Your task to perform on an android device: Empty the shopping cart on bestbuy.com. Search for dell alienware on bestbuy.com, select the first entry, and add it to the cart. Image 0: 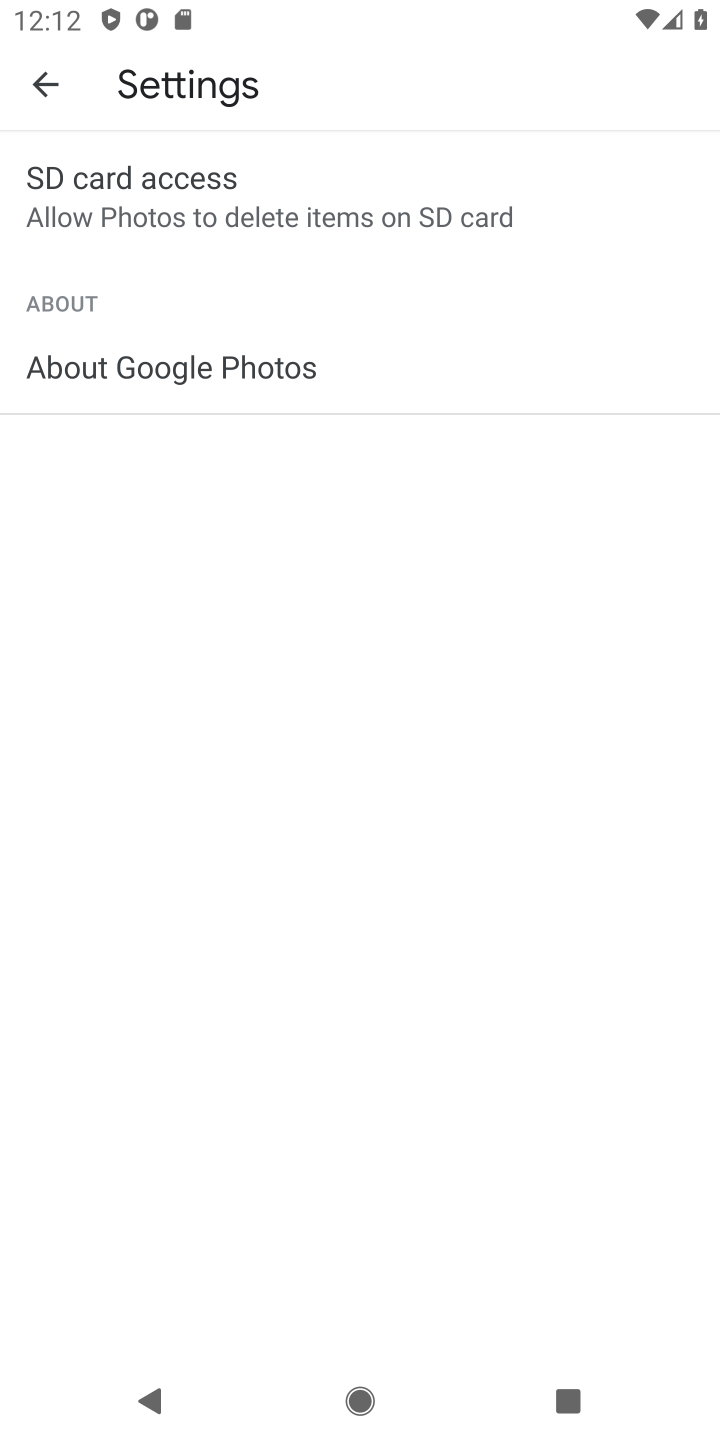
Step 0: press home button
Your task to perform on an android device: Empty the shopping cart on bestbuy.com. Search for dell alienware on bestbuy.com, select the first entry, and add it to the cart. Image 1: 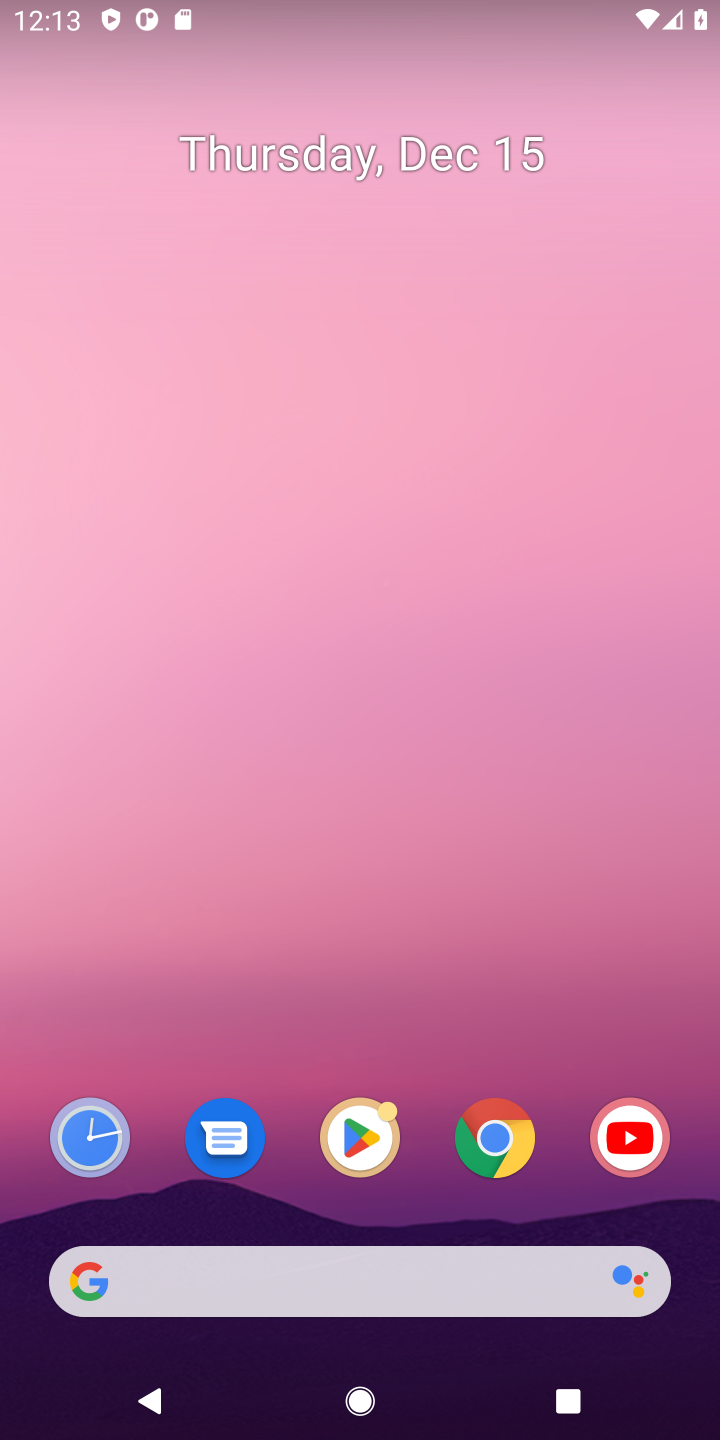
Step 1: click (498, 1134)
Your task to perform on an android device: Empty the shopping cart on bestbuy.com. Search for dell alienware on bestbuy.com, select the first entry, and add it to the cart. Image 2: 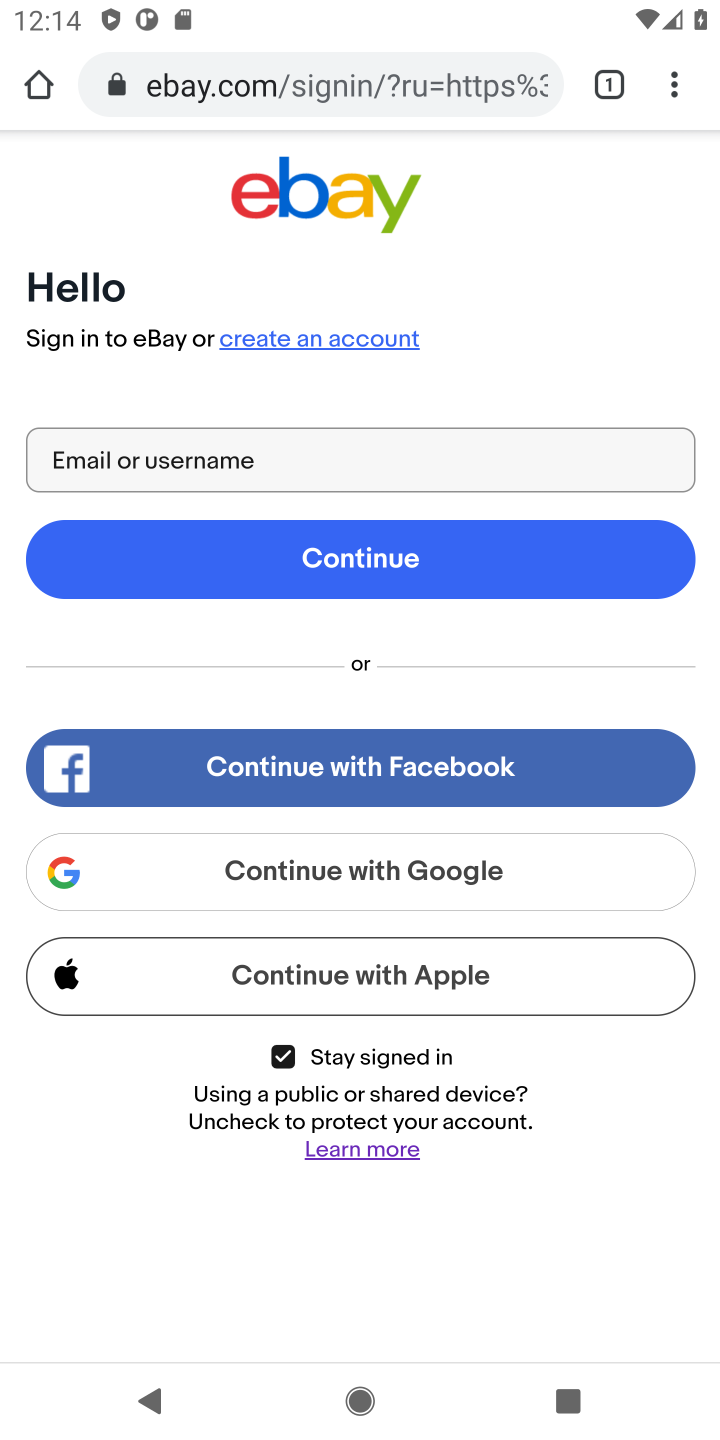
Step 2: press home button
Your task to perform on an android device: Empty the shopping cart on bestbuy.com. Search for dell alienware on bestbuy.com, select the first entry, and add it to the cart. Image 3: 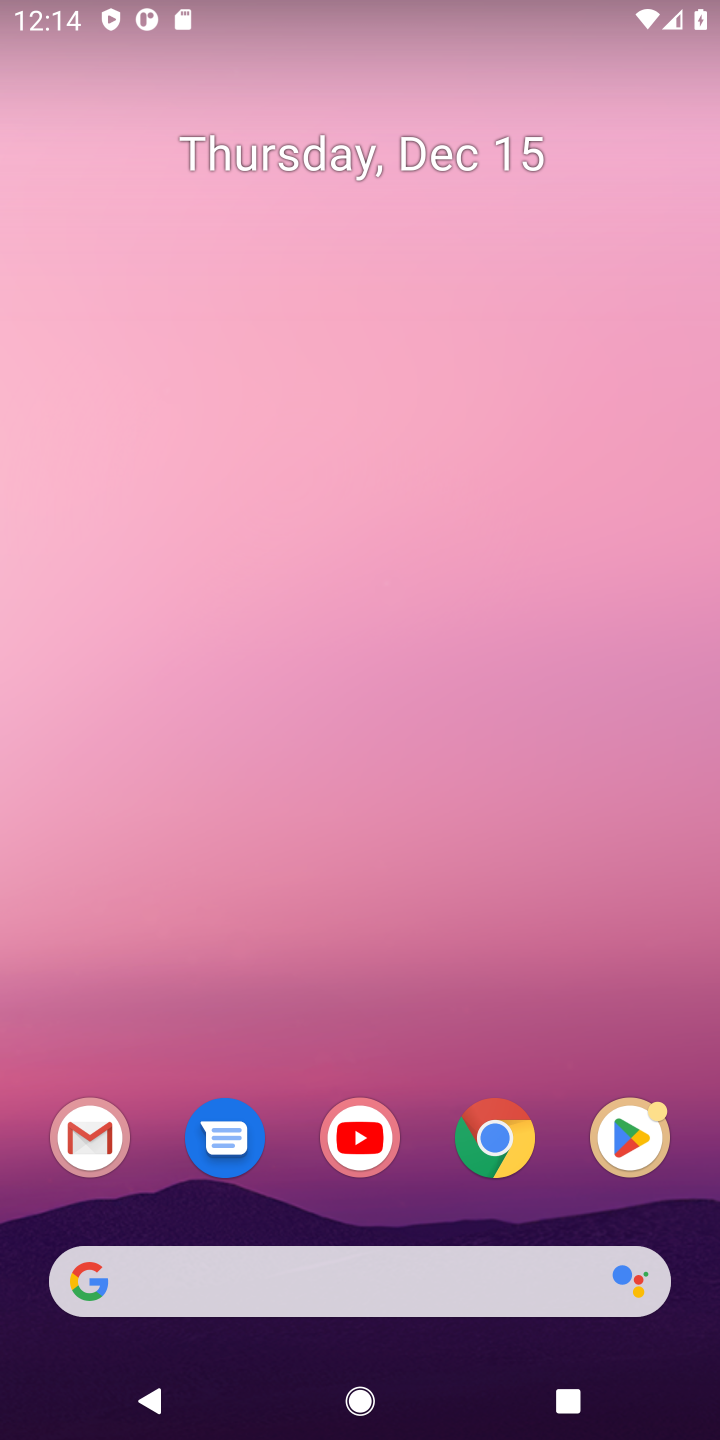
Step 3: click (491, 1127)
Your task to perform on an android device: Empty the shopping cart on bestbuy.com. Search for dell alienware on bestbuy.com, select the first entry, and add it to the cart. Image 4: 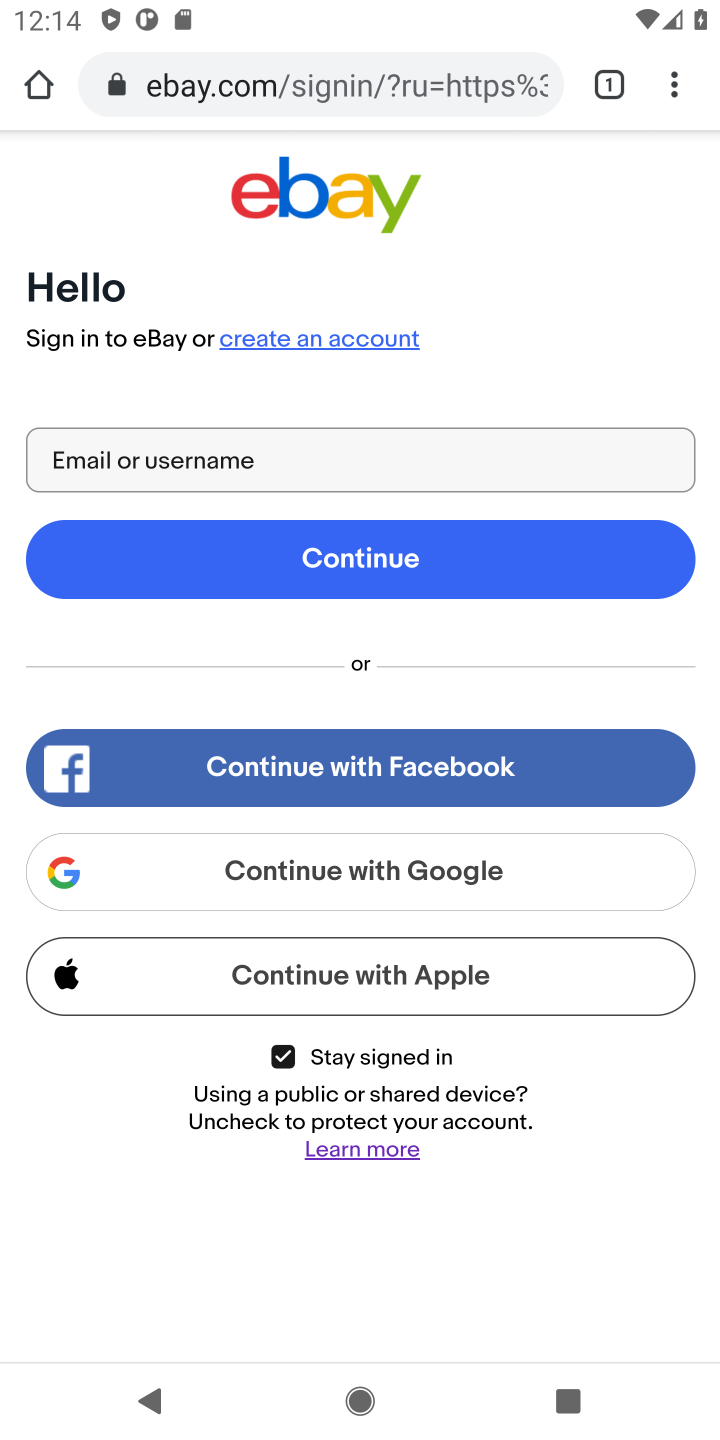
Step 4: click (232, 95)
Your task to perform on an android device: Empty the shopping cart on bestbuy.com. Search for dell alienware on bestbuy.com, select the first entry, and add it to the cart. Image 5: 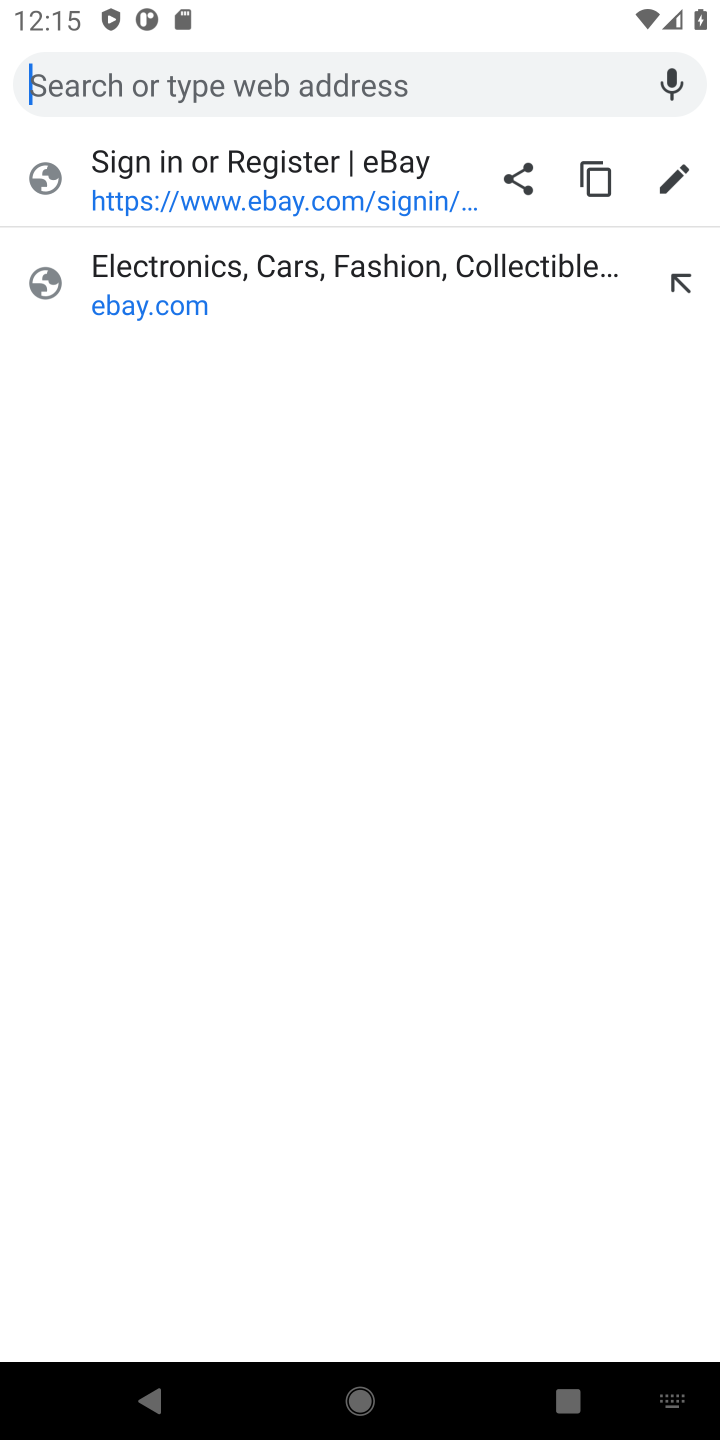
Step 5: type "bestbuy.com"
Your task to perform on an android device: Empty the shopping cart on bestbuy.com. Search for dell alienware on bestbuy.com, select the first entry, and add it to the cart. Image 6: 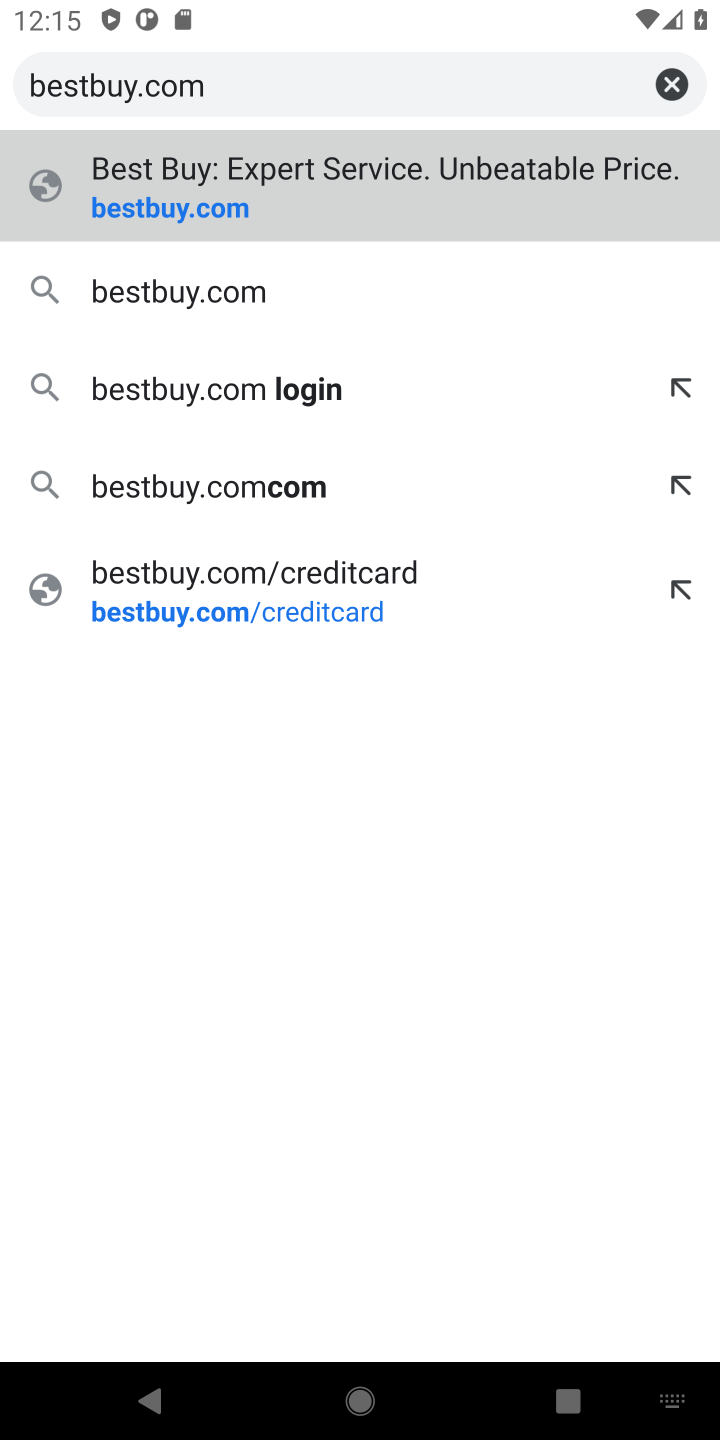
Step 6: click (161, 299)
Your task to perform on an android device: Empty the shopping cart on bestbuy.com. Search for dell alienware on bestbuy.com, select the first entry, and add it to the cart. Image 7: 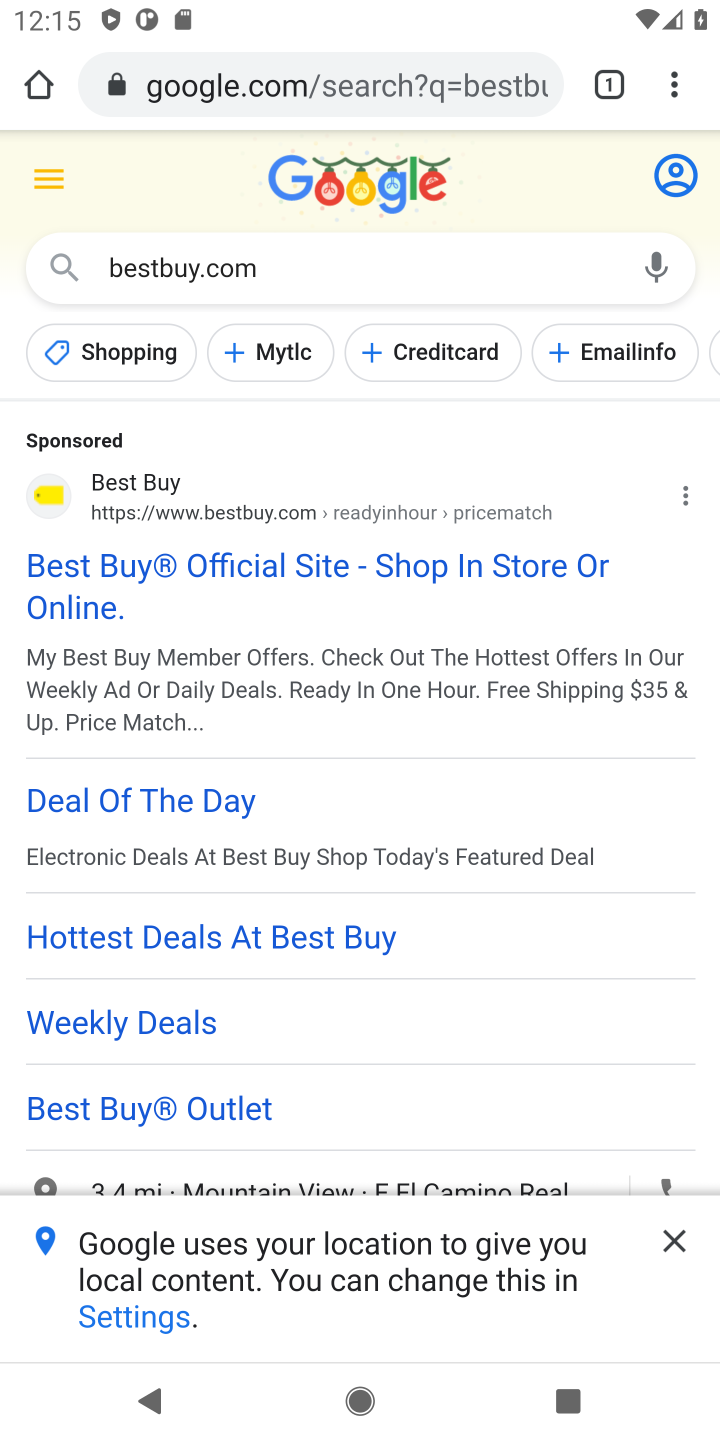
Step 7: click (254, 106)
Your task to perform on an android device: Empty the shopping cart on bestbuy.com. Search for dell alienware on bestbuy.com, select the first entry, and add it to the cart. Image 8: 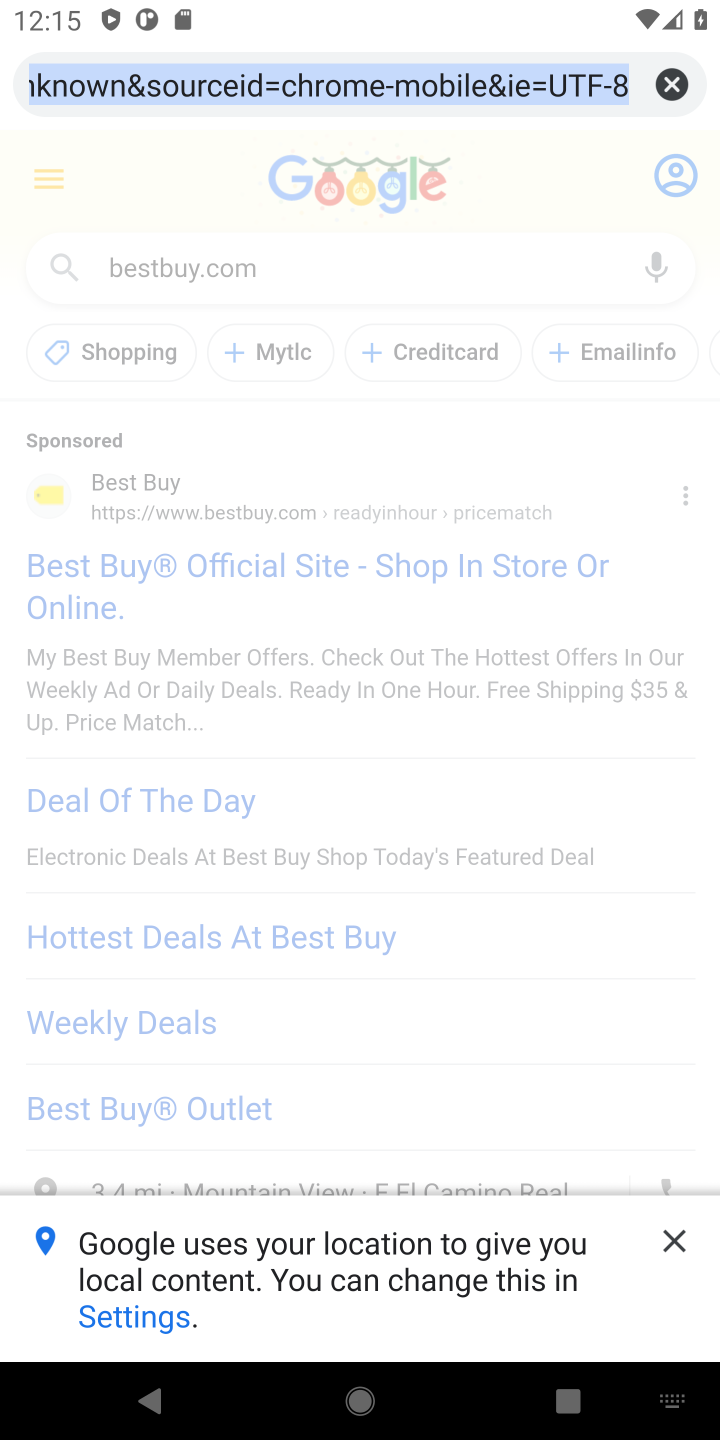
Step 8: click (675, 83)
Your task to perform on an android device: Empty the shopping cart on bestbuy.com. Search for dell alienware on bestbuy.com, select the first entry, and add it to the cart. Image 9: 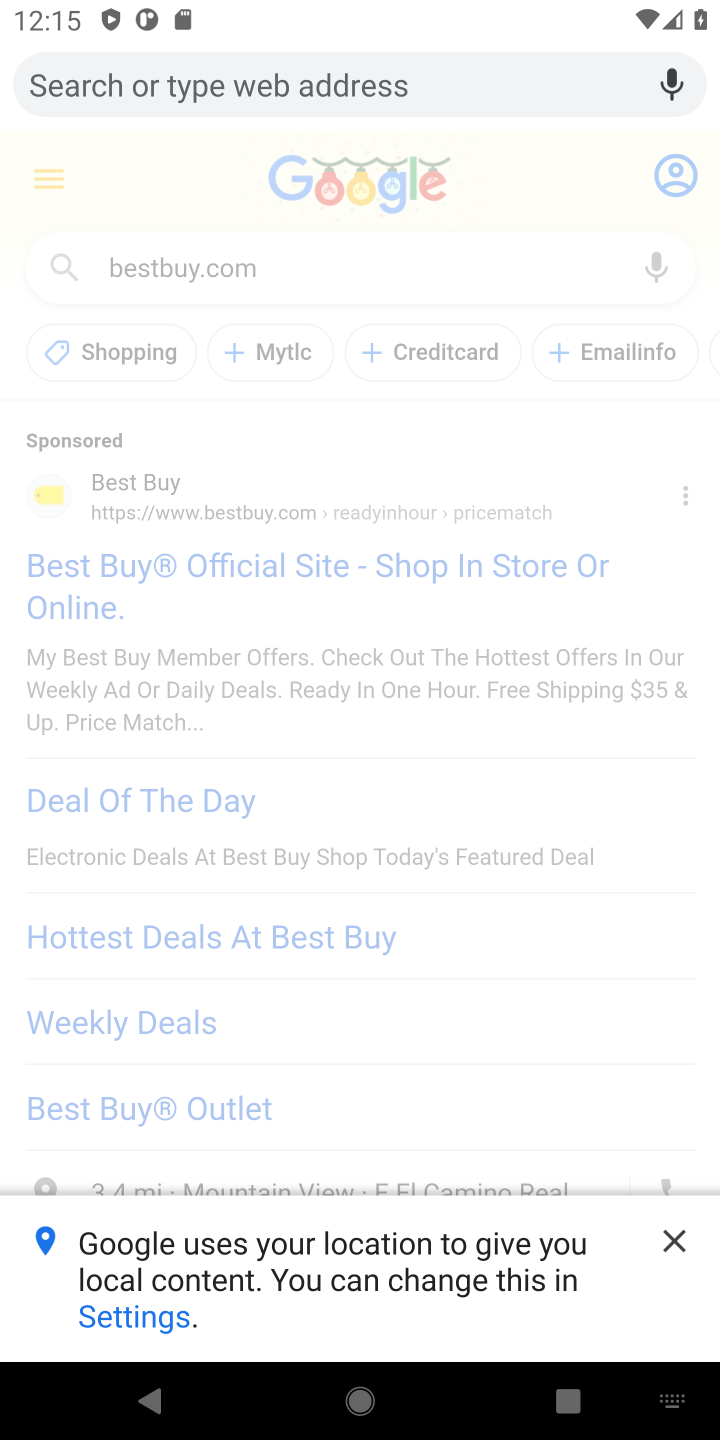
Step 9: type "bestbuy.com"
Your task to perform on an android device: Empty the shopping cart on bestbuy.com. Search for dell alienware on bestbuy.com, select the first entry, and add it to the cart. Image 10: 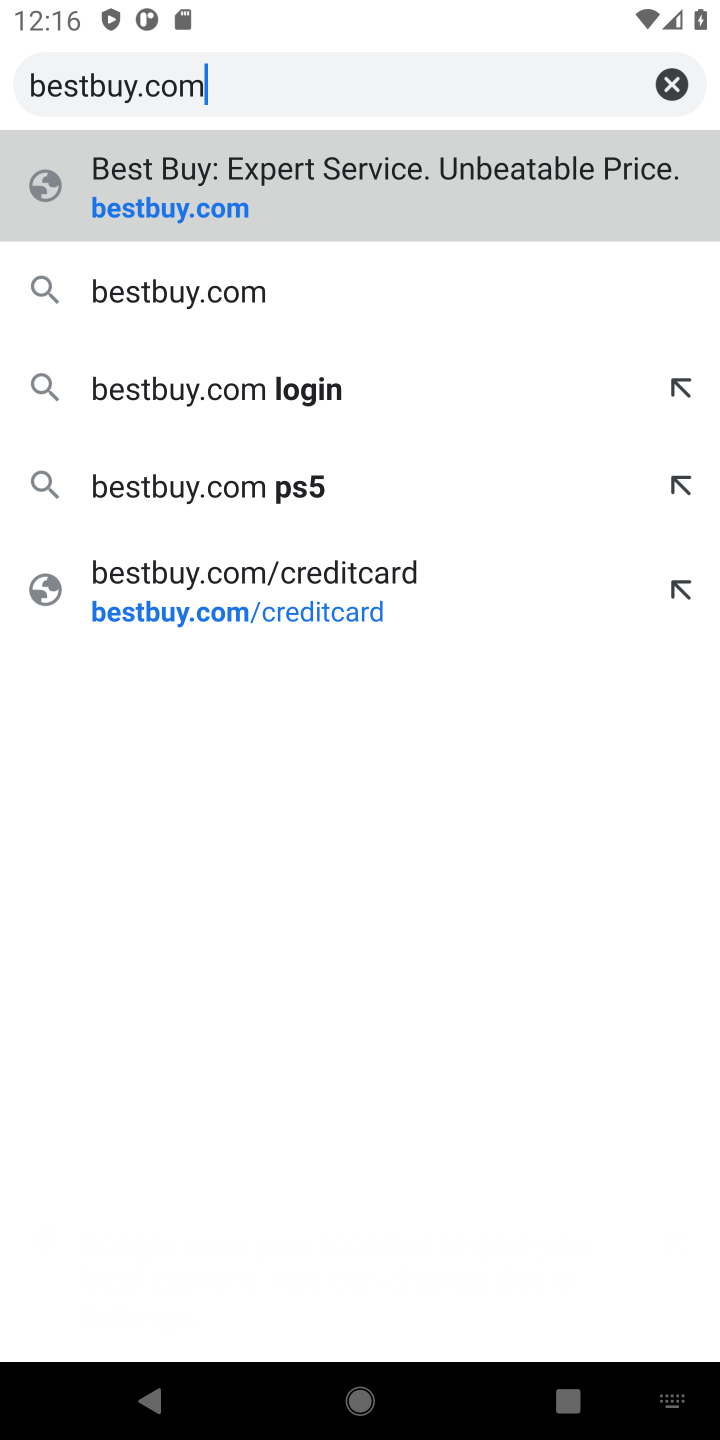
Step 10: click (409, 180)
Your task to perform on an android device: Empty the shopping cart on bestbuy.com. Search for dell alienware on bestbuy.com, select the first entry, and add it to the cart. Image 11: 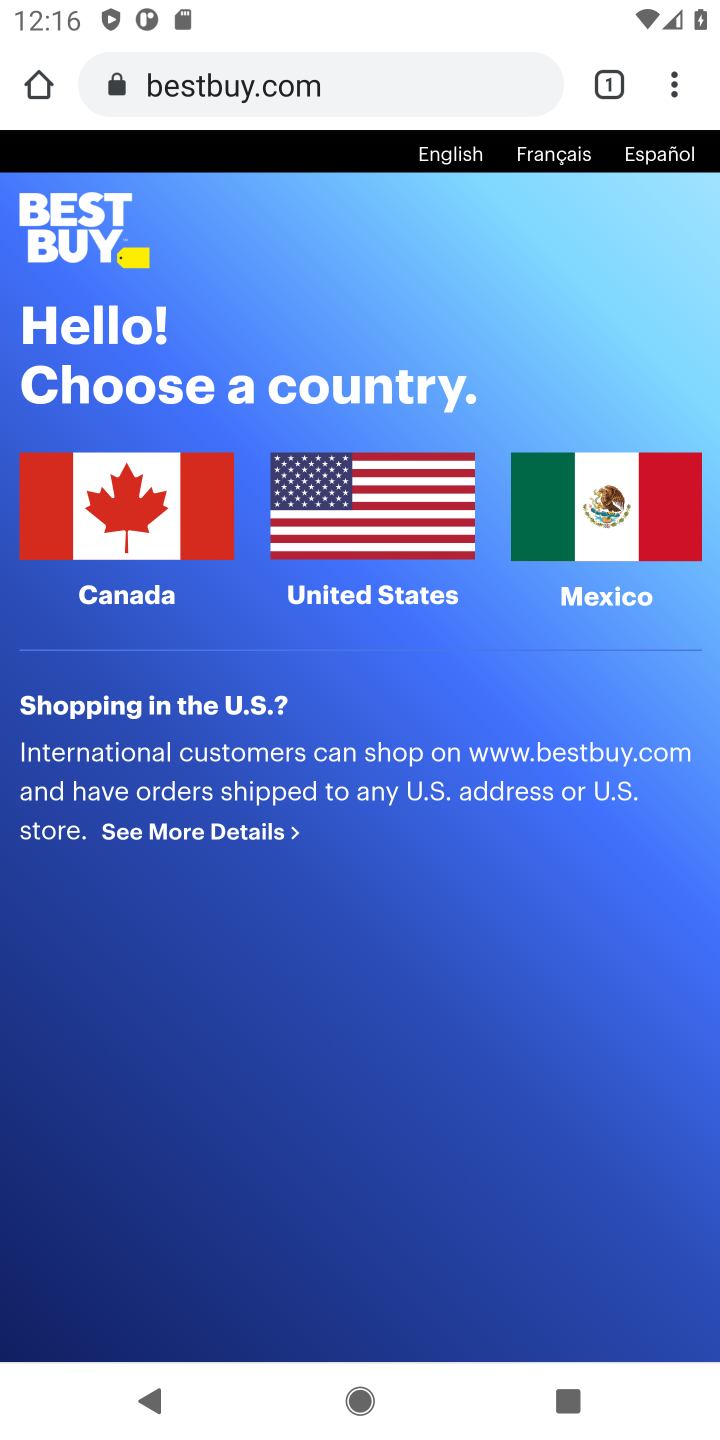
Step 11: click (360, 508)
Your task to perform on an android device: Empty the shopping cart on bestbuy.com. Search for dell alienware on bestbuy.com, select the first entry, and add it to the cart. Image 12: 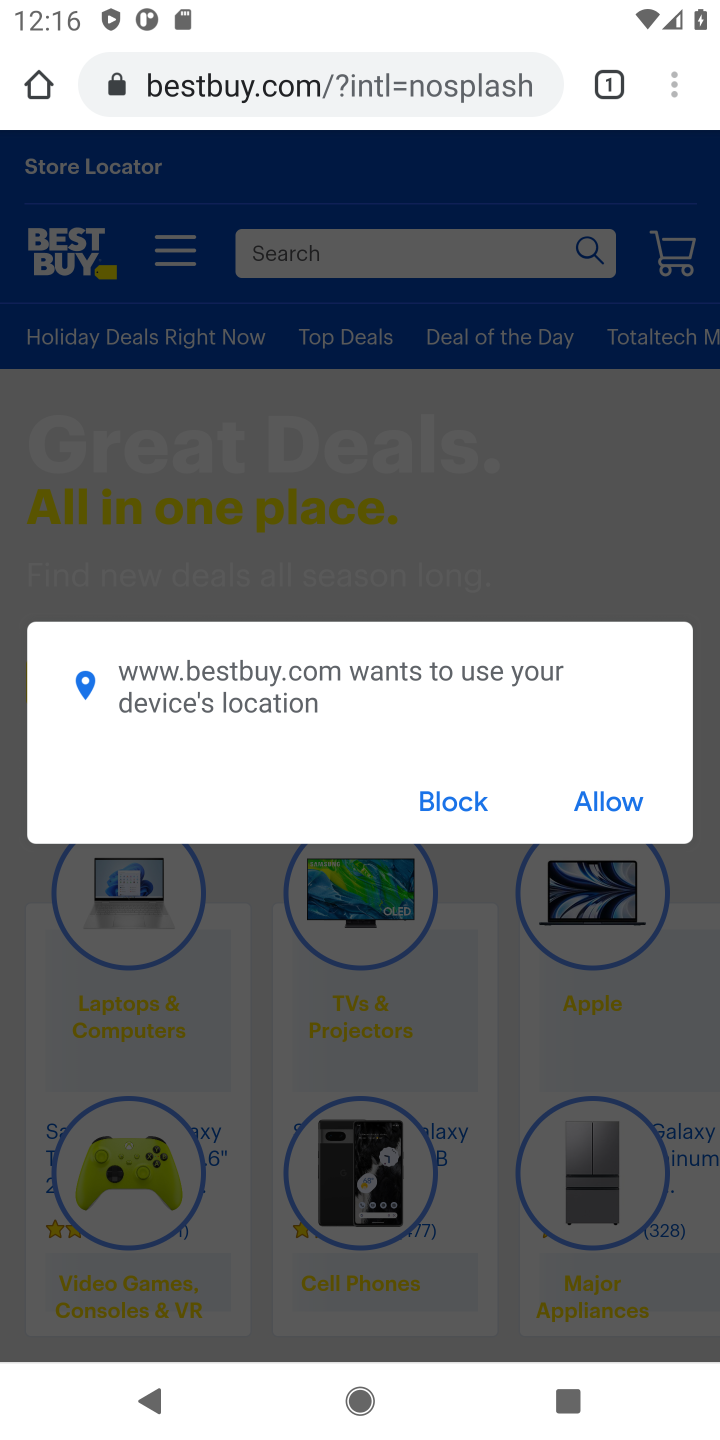
Step 12: click (438, 801)
Your task to perform on an android device: Empty the shopping cart on bestbuy.com. Search for dell alienware on bestbuy.com, select the first entry, and add it to the cart. Image 13: 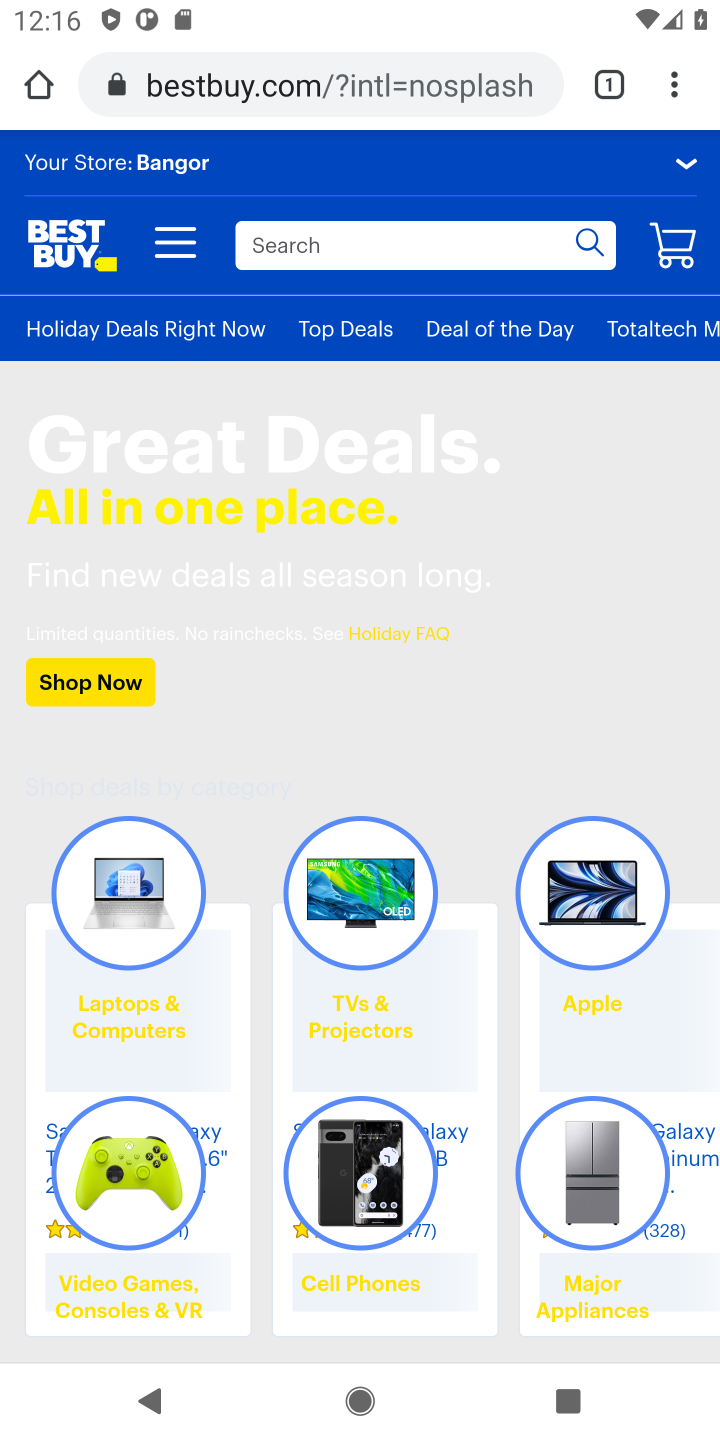
Step 13: click (661, 240)
Your task to perform on an android device: Empty the shopping cart on bestbuy.com. Search for dell alienware on bestbuy.com, select the first entry, and add it to the cart. Image 14: 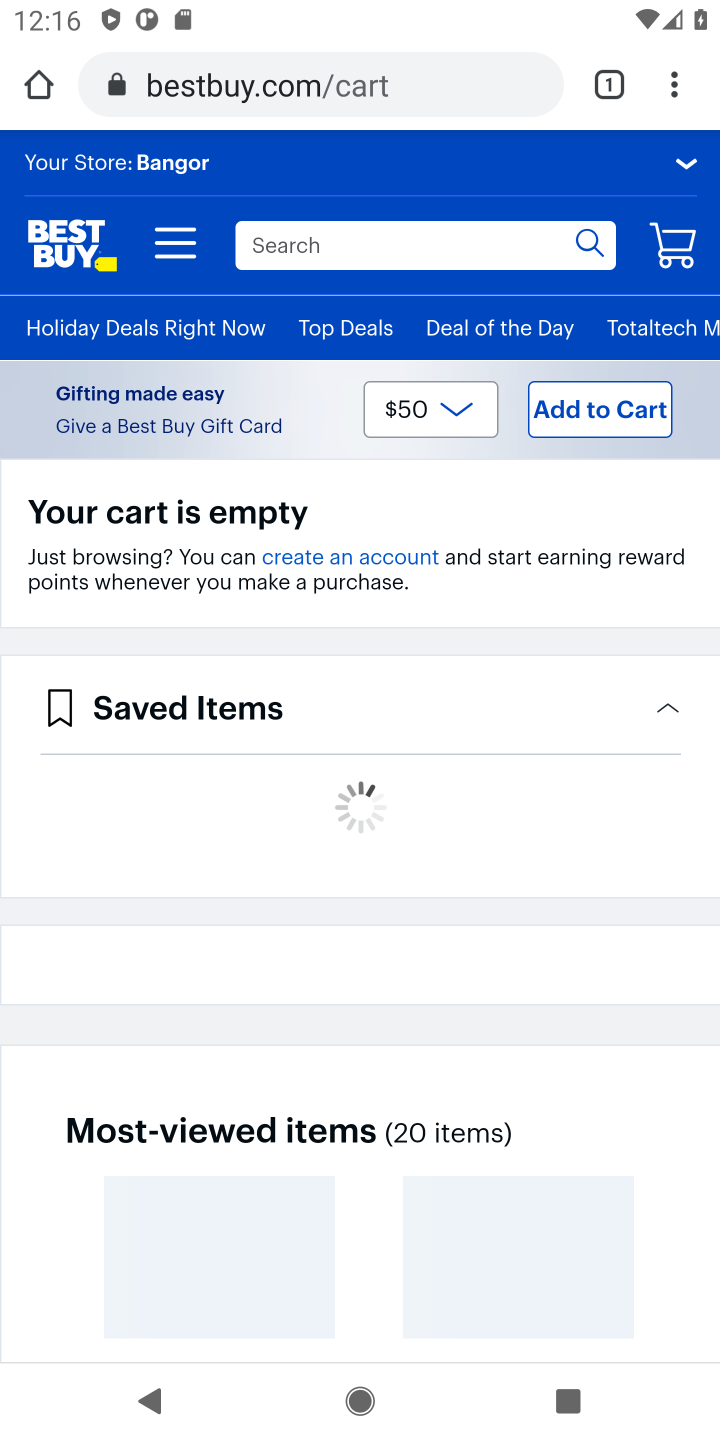
Step 14: drag from (580, 1374) to (7, 996)
Your task to perform on an android device: Empty the shopping cart on bestbuy.com. Search for dell alienware on bestbuy.com, select the first entry, and add it to the cart. Image 15: 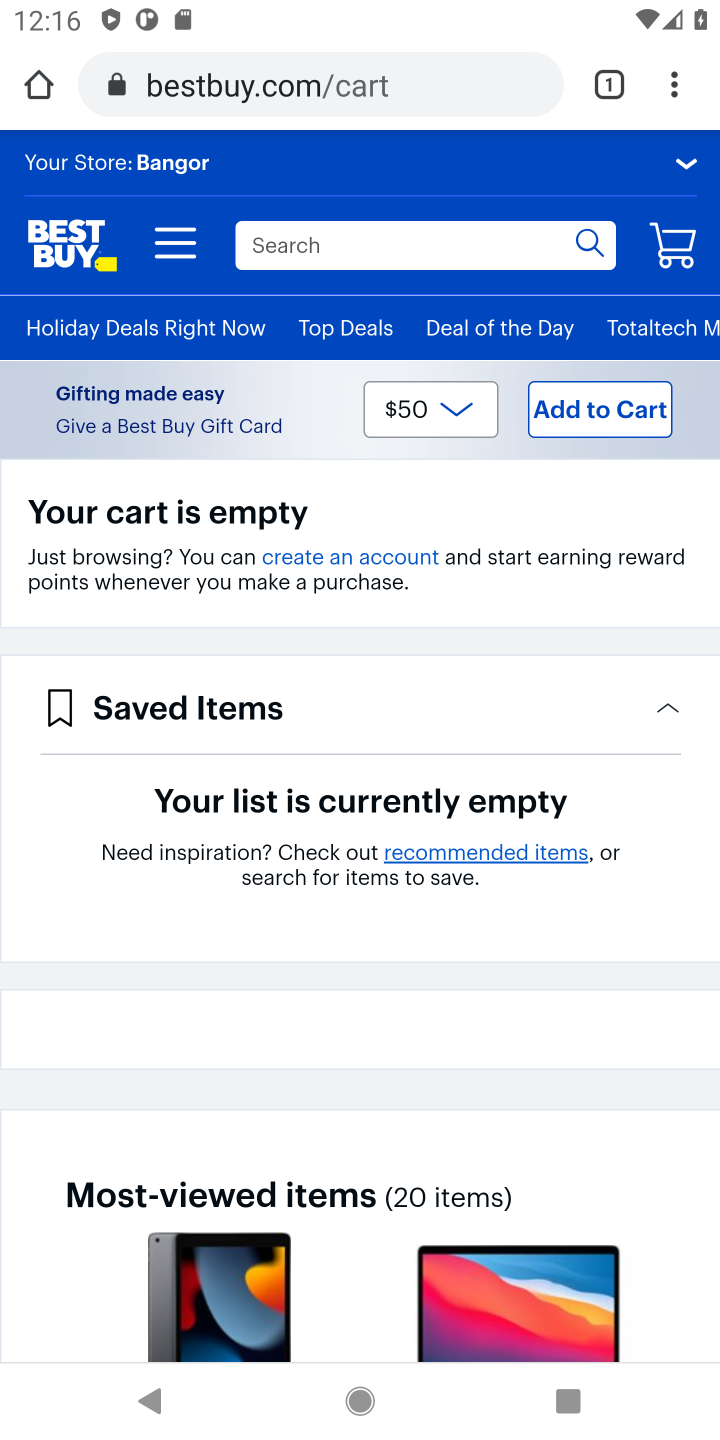
Step 15: click (462, 262)
Your task to perform on an android device: Empty the shopping cart on bestbuy.com. Search for dell alienware on bestbuy.com, select the first entry, and add it to the cart. Image 16: 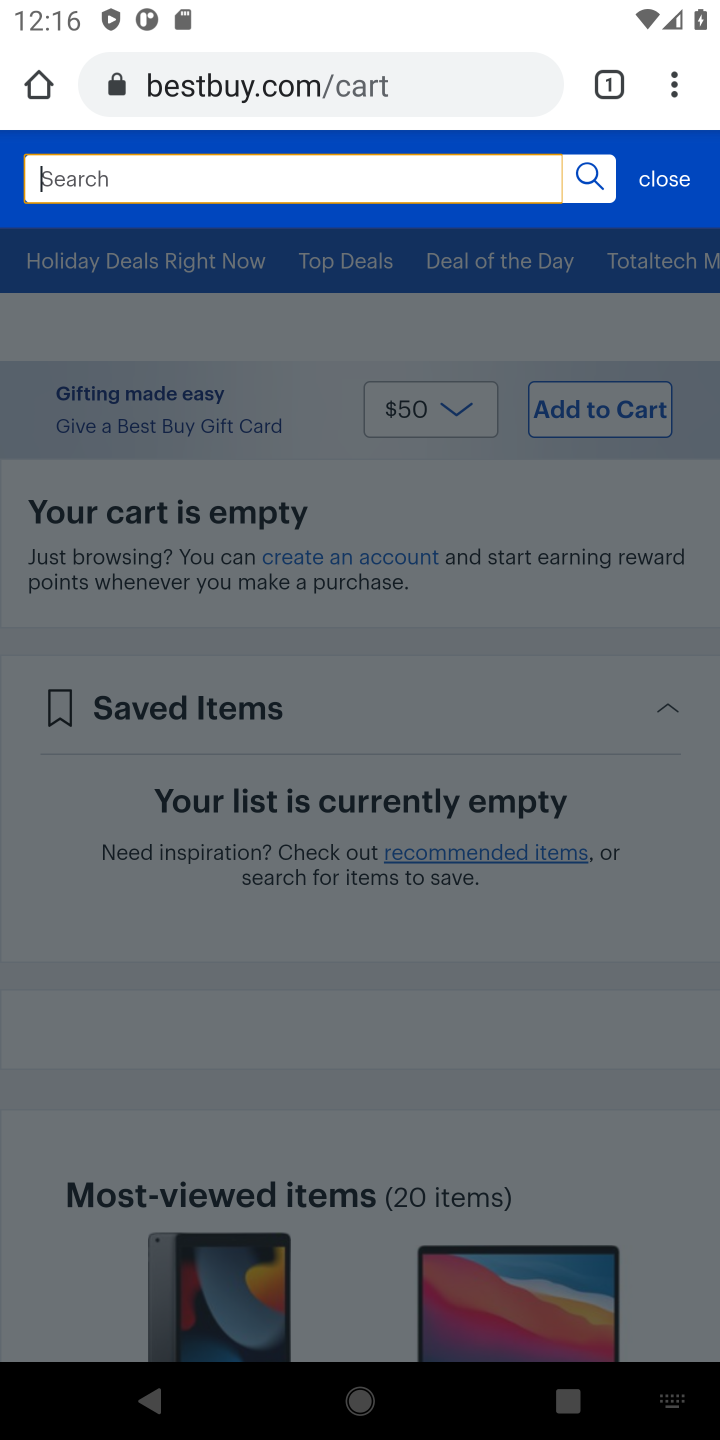
Step 16: type "dell alienware"
Your task to perform on an android device: Empty the shopping cart on bestbuy.com. Search for dell alienware on bestbuy.com, select the first entry, and add it to the cart. Image 17: 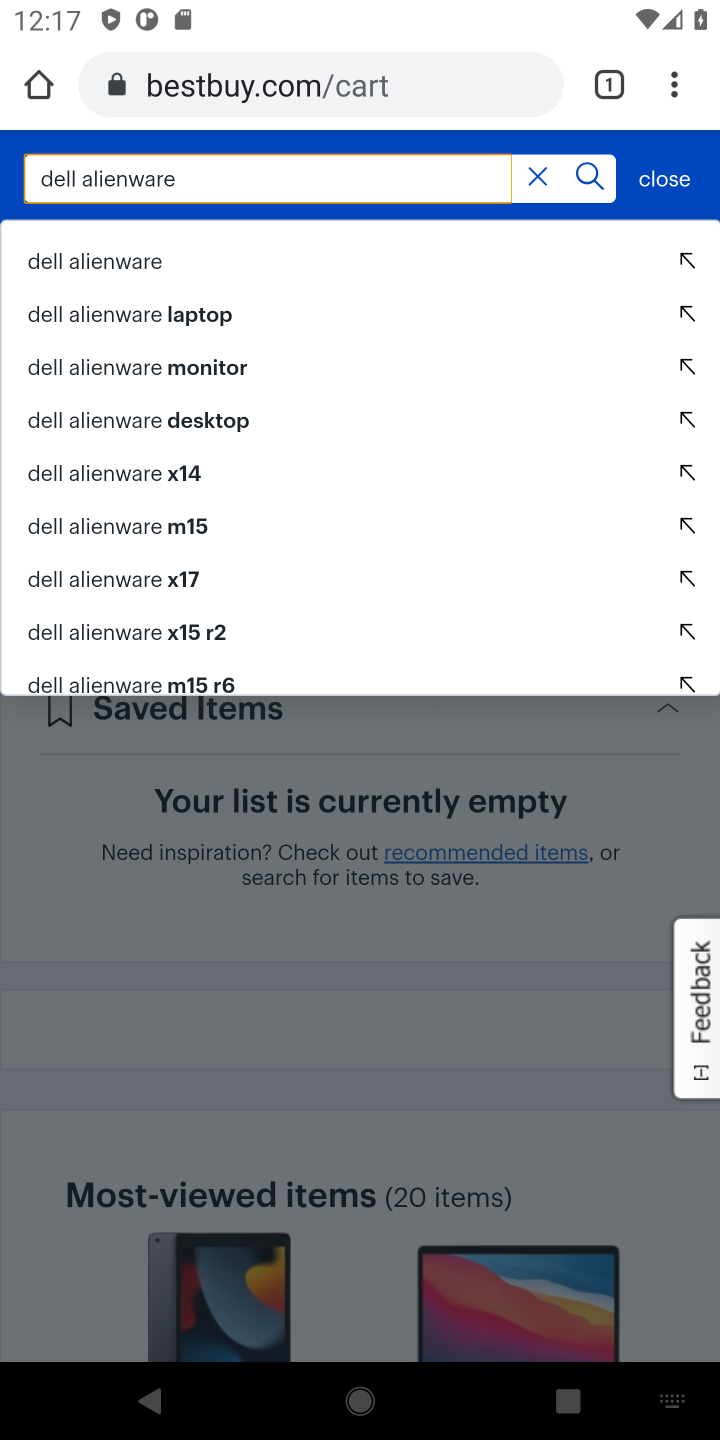
Step 17: click (192, 264)
Your task to perform on an android device: Empty the shopping cart on bestbuy.com. Search for dell alienware on bestbuy.com, select the first entry, and add it to the cart. Image 18: 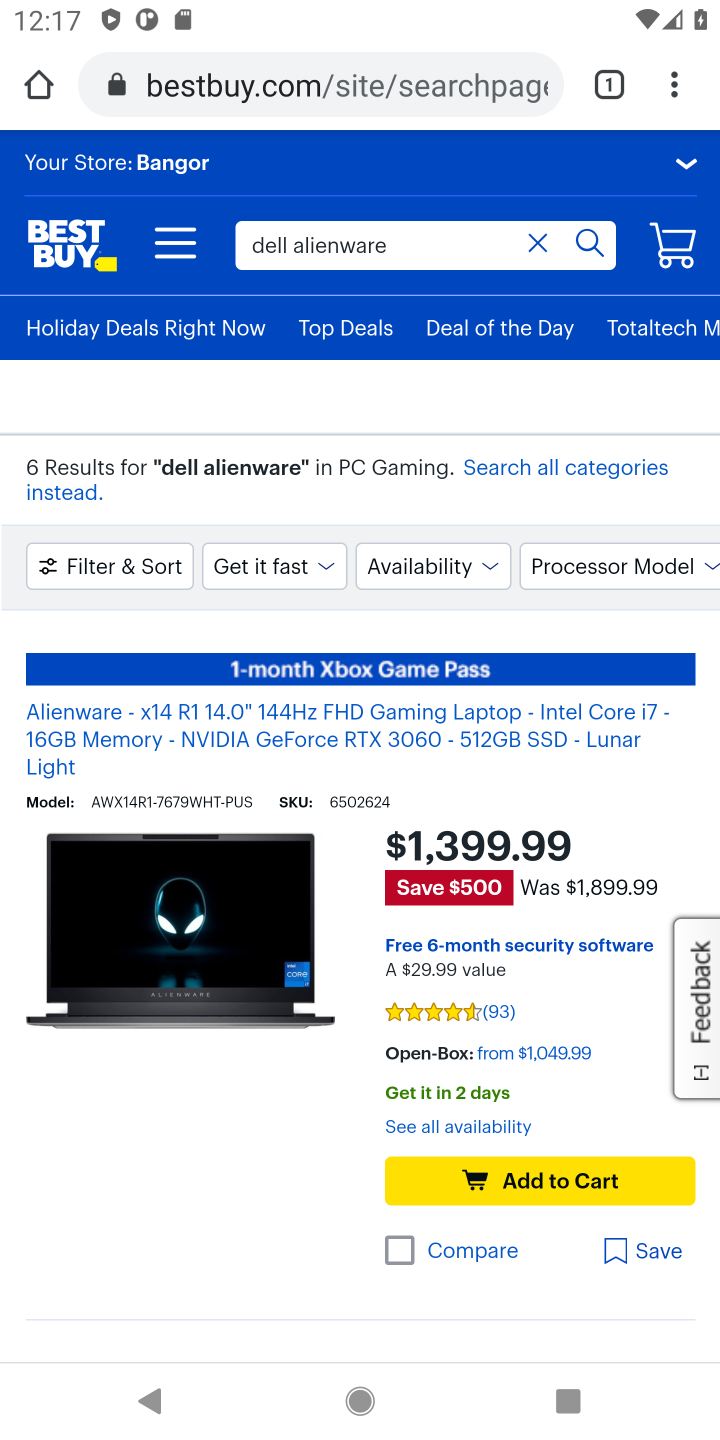
Step 18: click (514, 1179)
Your task to perform on an android device: Empty the shopping cart on bestbuy.com. Search for dell alienware on bestbuy.com, select the first entry, and add it to the cart. Image 19: 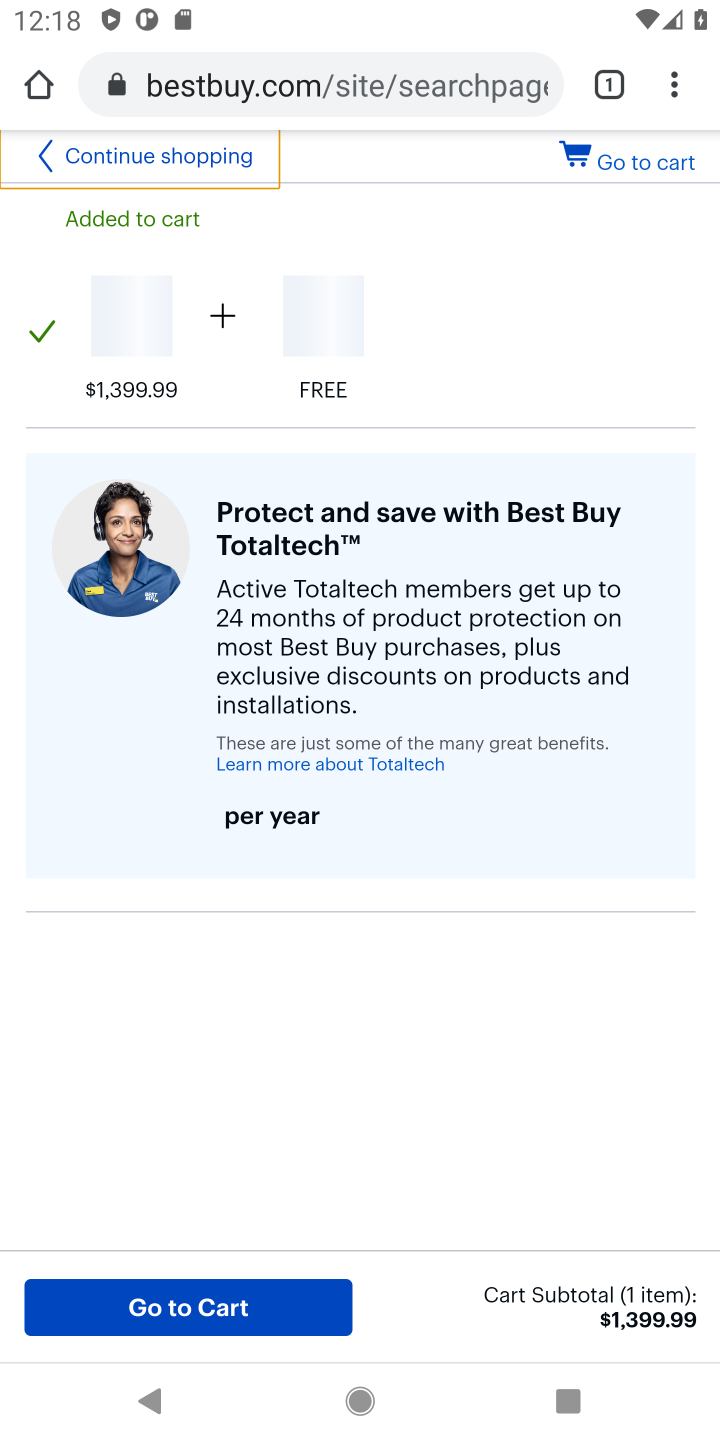
Step 19: click (142, 1319)
Your task to perform on an android device: Empty the shopping cart on bestbuy.com. Search for dell alienware on bestbuy.com, select the first entry, and add it to the cart. Image 20: 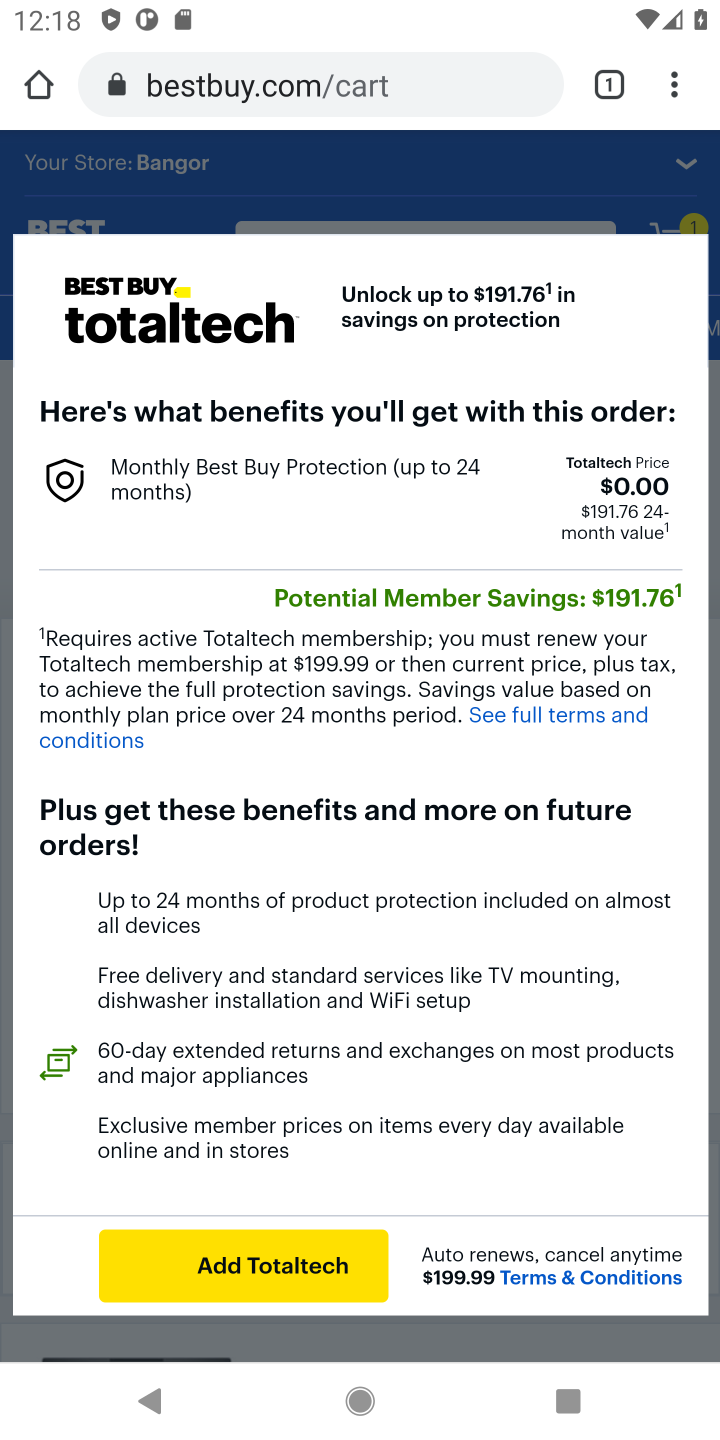
Step 20: click (288, 1045)
Your task to perform on an android device: Empty the shopping cart on bestbuy.com. Search for dell alienware on bestbuy.com, select the first entry, and add it to the cart. Image 21: 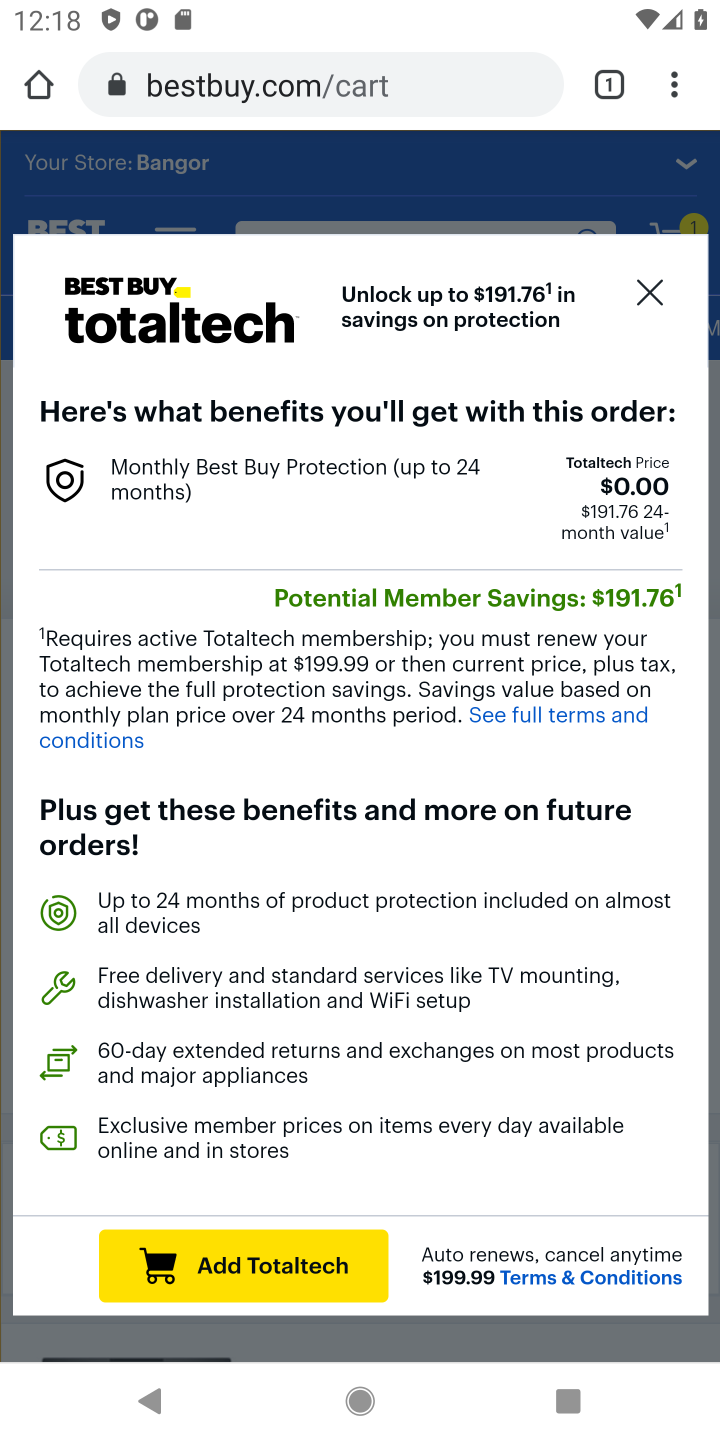
Step 21: click (232, 1257)
Your task to perform on an android device: Empty the shopping cart on bestbuy.com. Search for dell alienware on bestbuy.com, select the first entry, and add it to the cart. Image 22: 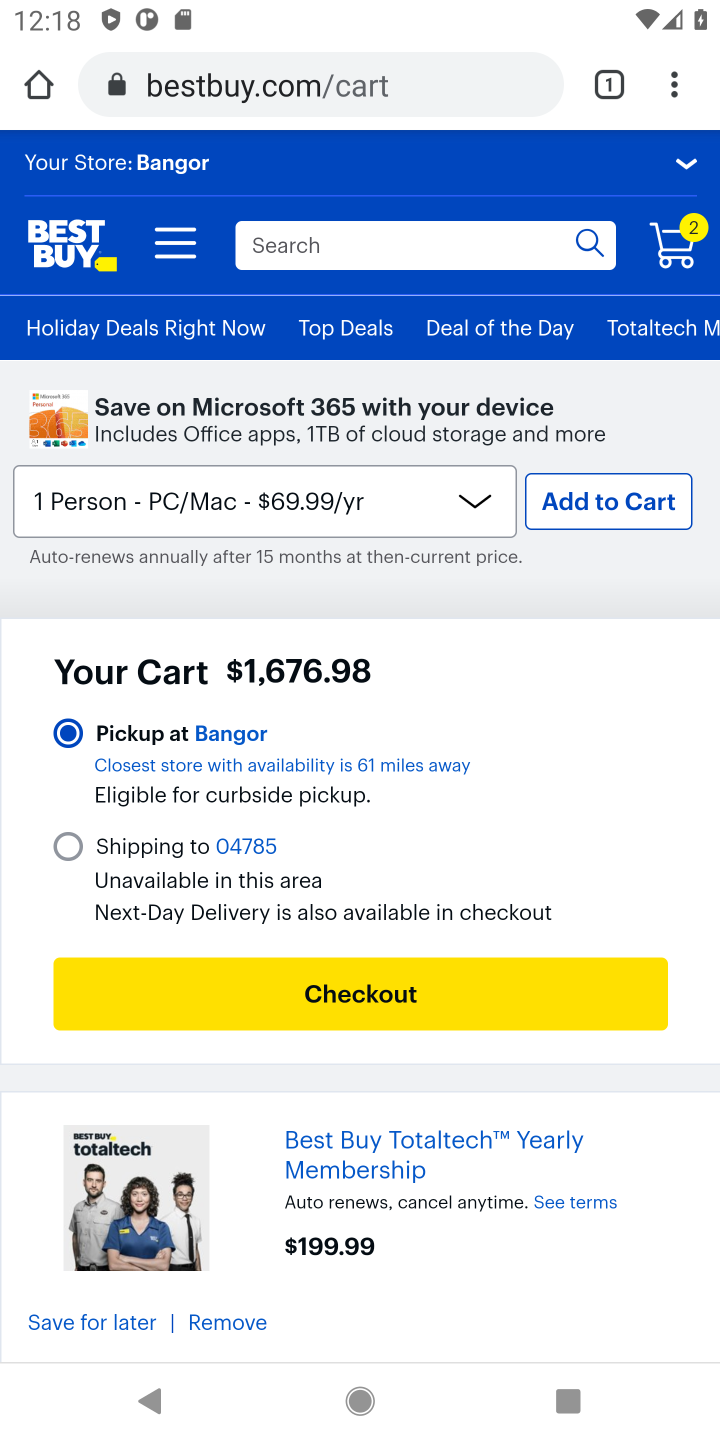
Step 22: click (464, 981)
Your task to perform on an android device: Empty the shopping cart on bestbuy.com. Search for dell alienware on bestbuy.com, select the first entry, and add it to the cart. Image 23: 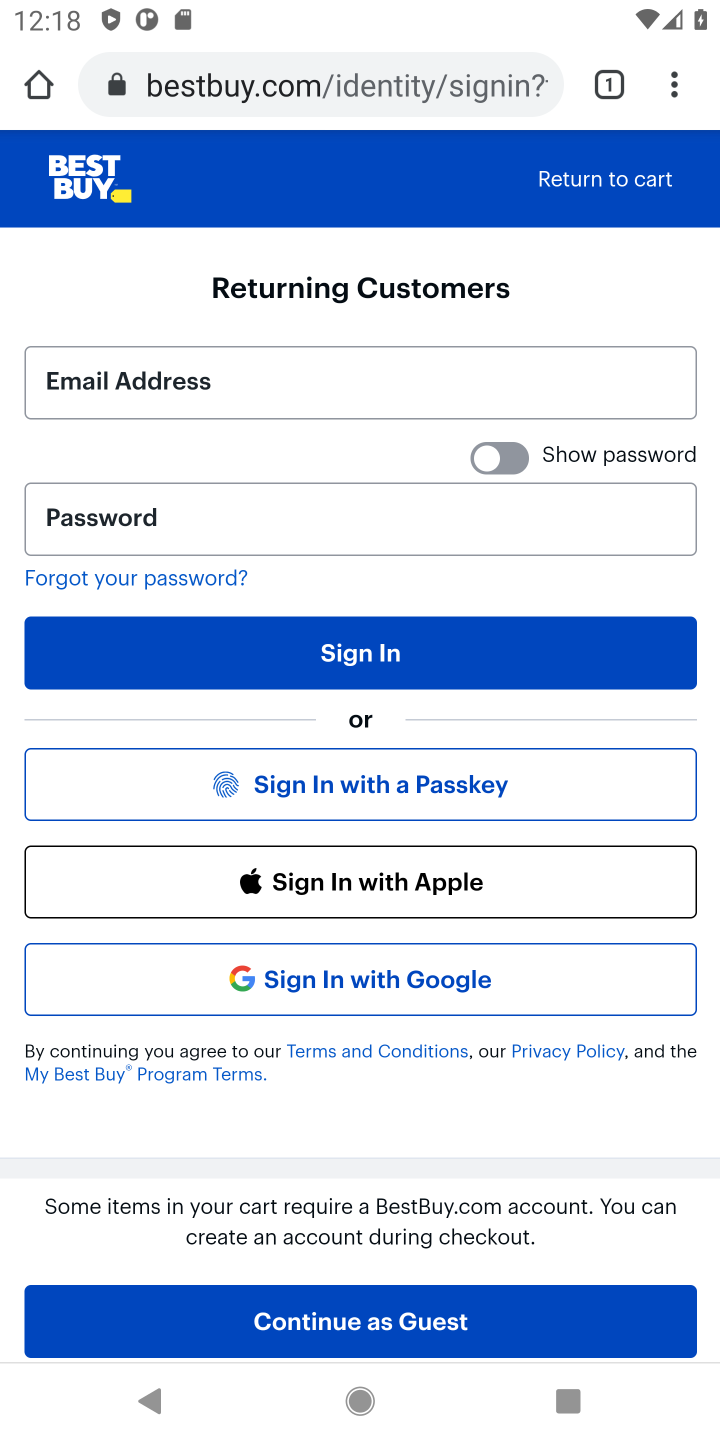
Step 23: task complete